Your task to perform on an android device: Open settings on Google Maps Image 0: 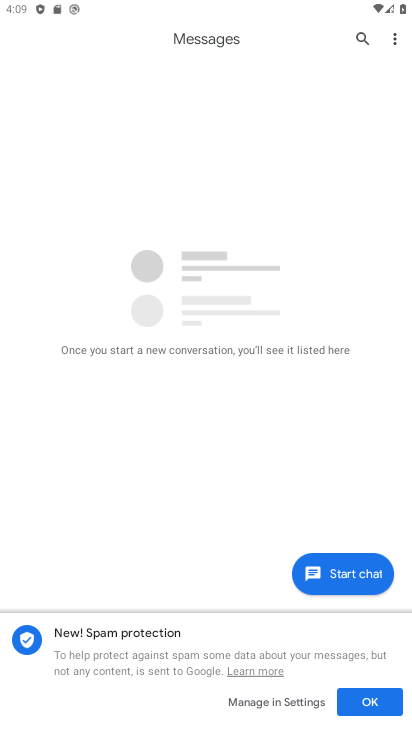
Step 0: drag from (192, 655) to (218, 147)
Your task to perform on an android device: Open settings on Google Maps Image 1: 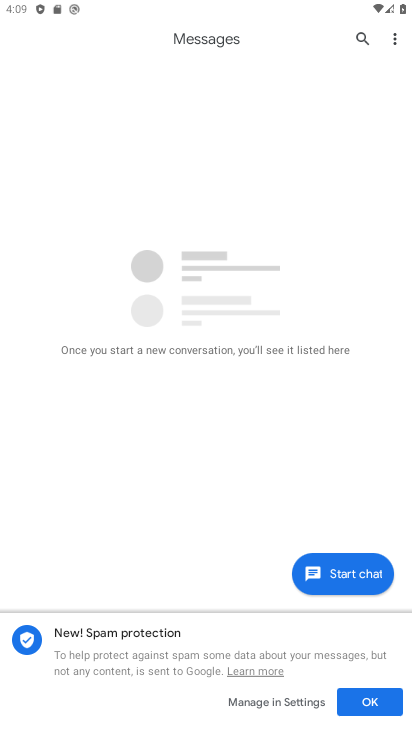
Step 1: press home button
Your task to perform on an android device: Open settings on Google Maps Image 2: 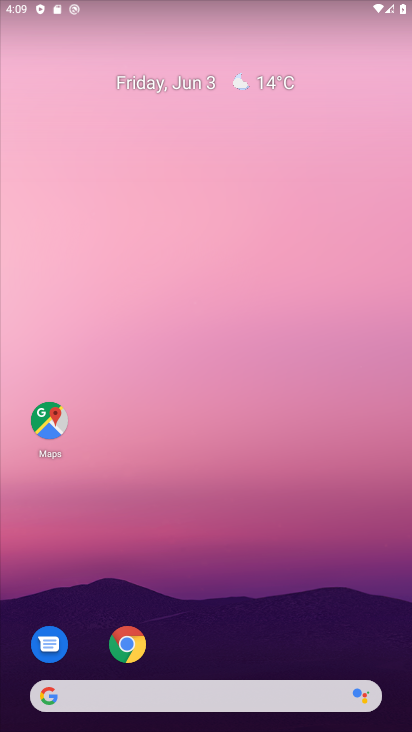
Step 2: click (51, 432)
Your task to perform on an android device: Open settings on Google Maps Image 3: 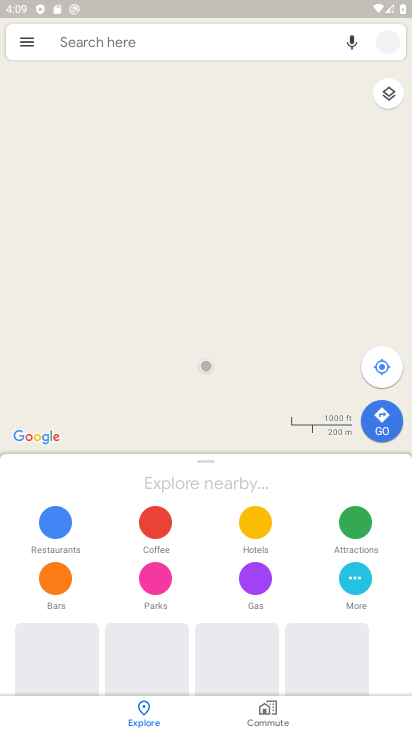
Step 3: click (30, 39)
Your task to perform on an android device: Open settings on Google Maps Image 4: 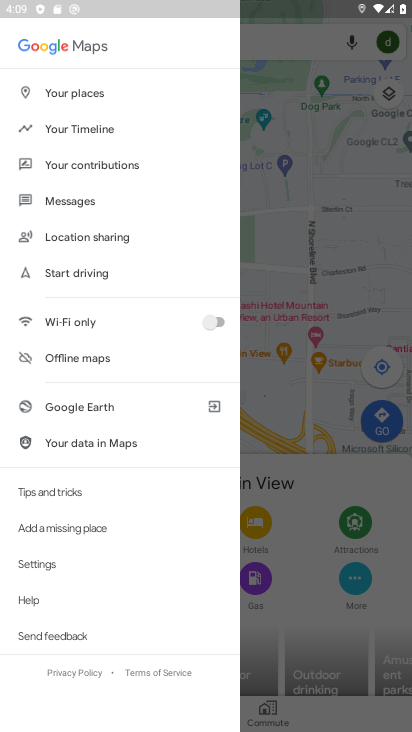
Step 4: click (40, 566)
Your task to perform on an android device: Open settings on Google Maps Image 5: 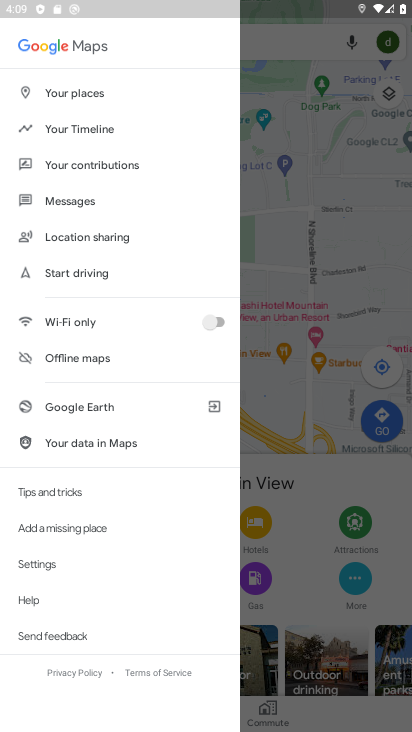
Step 5: click (40, 566)
Your task to perform on an android device: Open settings on Google Maps Image 6: 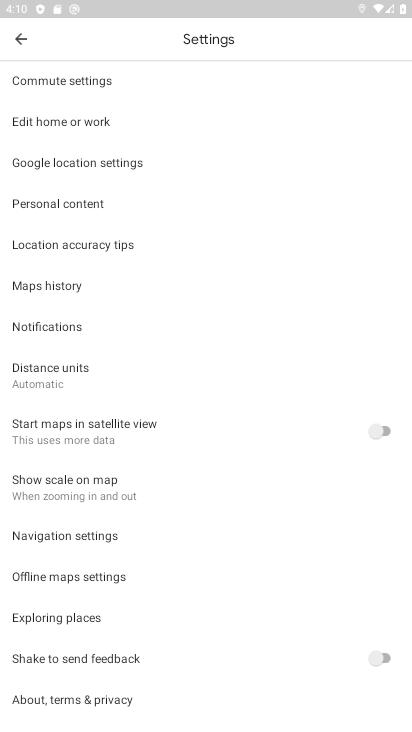
Step 6: task complete